Your task to perform on an android device: turn on wifi Image 0: 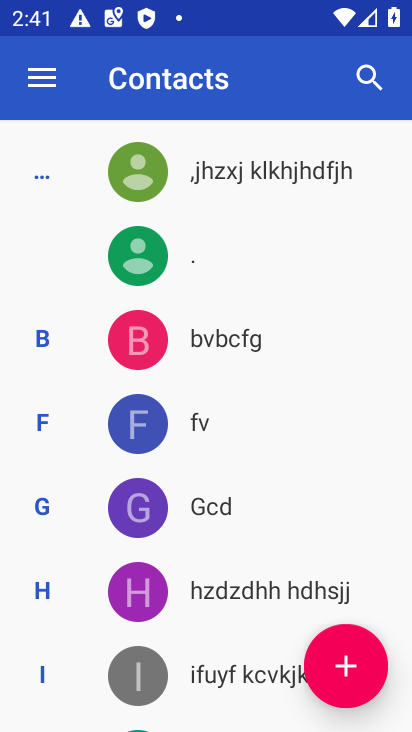
Step 0: press home button
Your task to perform on an android device: turn on wifi Image 1: 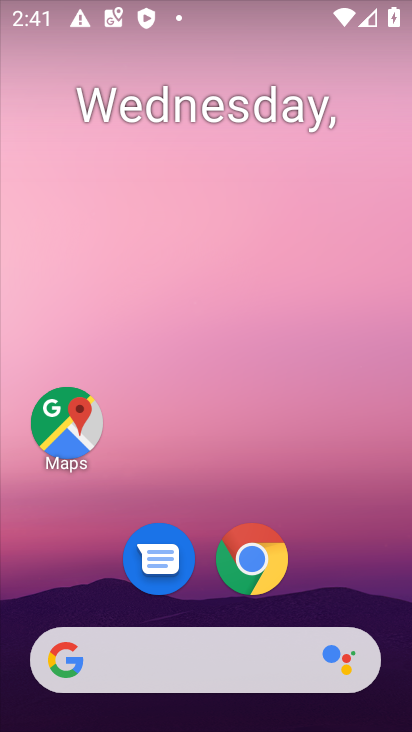
Step 1: drag from (203, 619) to (204, 229)
Your task to perform on an android device: turn on wifi Image 2: 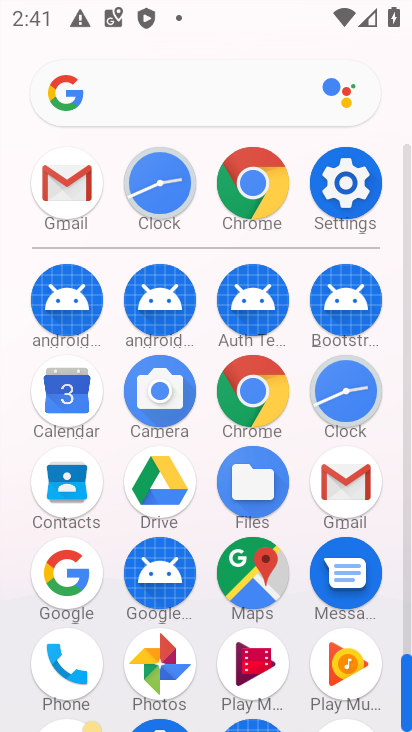
Step 2: click (345, 191)
Your task to perform on an android device: turn on wifi Image 3: 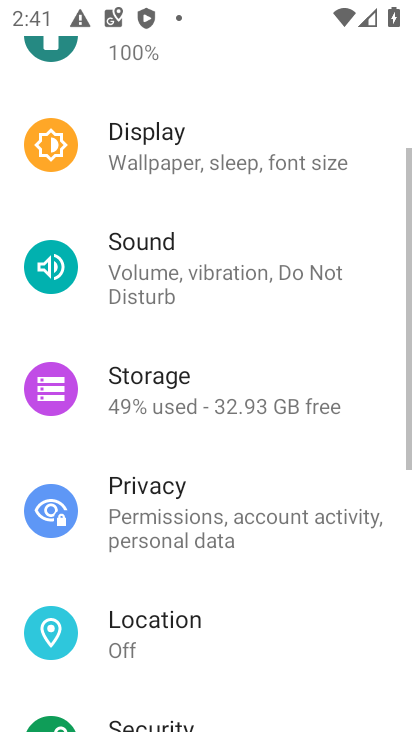
Step 3: drag from (239, 103) to (217, 559)
Your task to perform on an android device: turn on wifi Image 4: 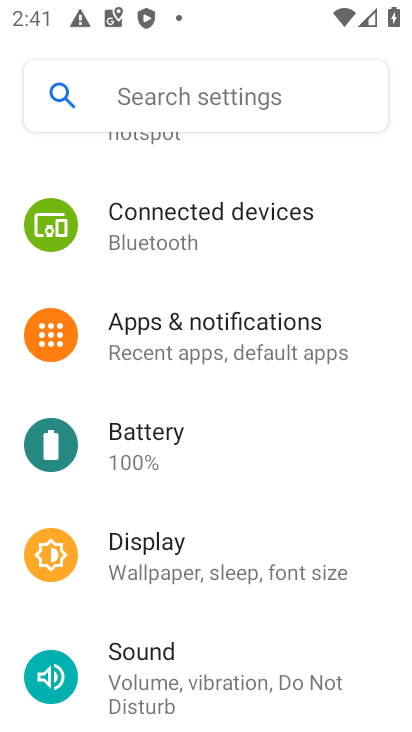
Step 4: drag from (200, 177) to (186, 562)
Your task to perform on an android device: turn on wifi Image 5: 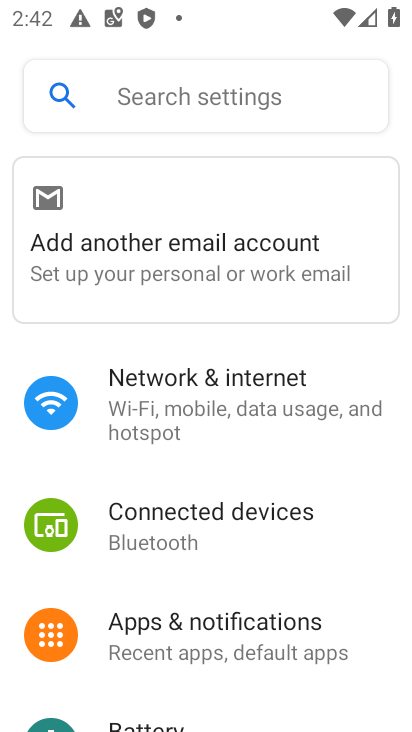
Step 5: click (200, 395)
Your task to perform on an android device: turn on wifi Image 6: 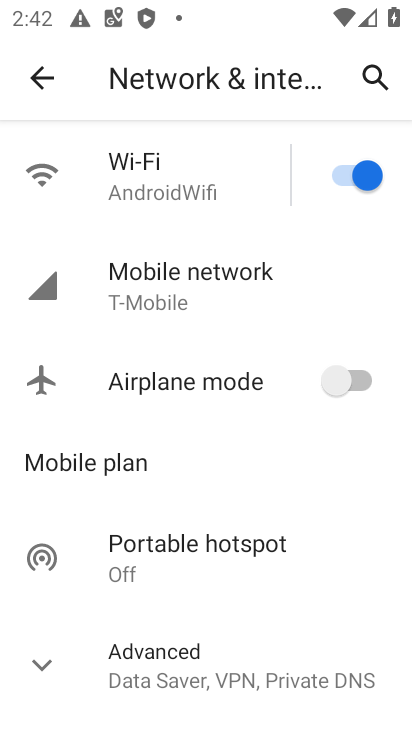
Step 6: task complete